Your task to perform on an android device: Open privacy settings Image 0: 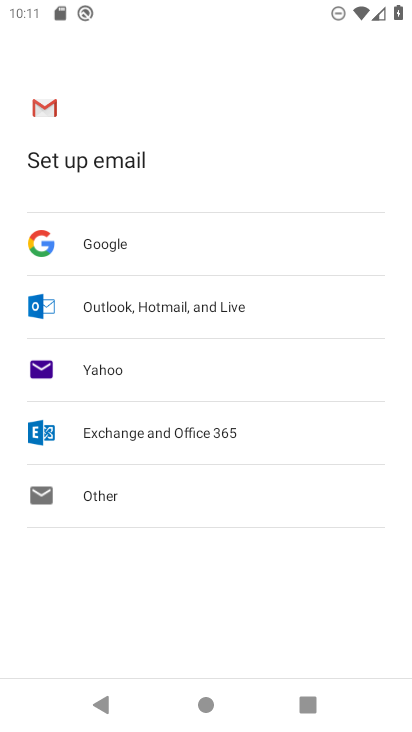
Step 0: press home button
Your task to perform on an android device: Open privacy settings Image 1: 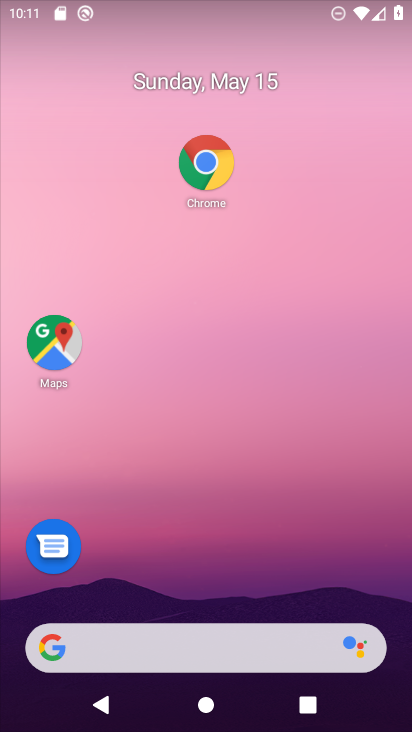
Step 1: drag from (241, 578) to (265, 173)
Your task to perform on an android device: Open privacy settings Image 2: 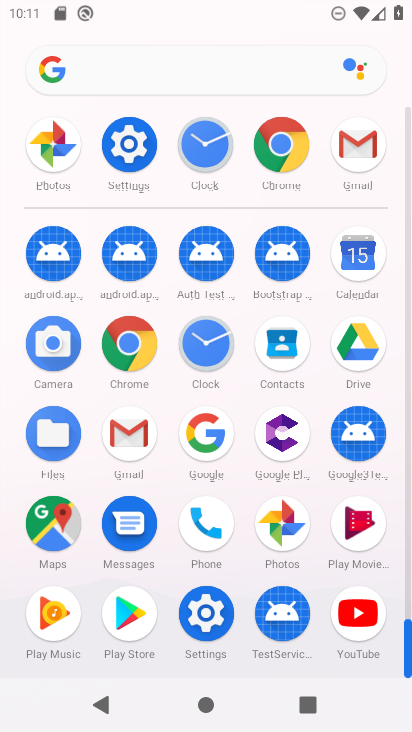
Step 2: click (125, 151)
Your task to perform on an android device: Open privacy settings Image 3: 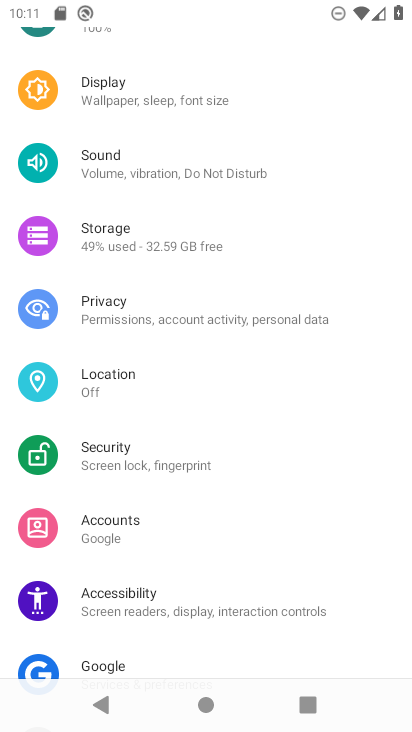
Step 3: click (147, 310)
Your task to perform on an android device: Open privacy settings Image 4: 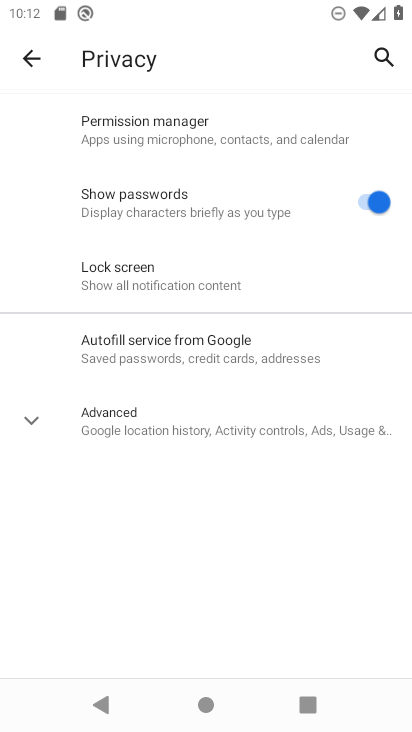
Step 4: task complete